Your task to perform on an android device: toggle improve location accuracy Image 0: 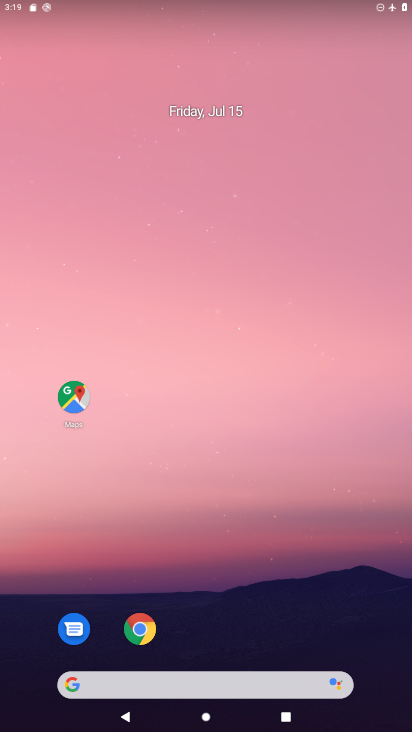
Step 0: drag from (300, 508) to (188, 8)
Your task to perform on an android device: toggle improve location accuracy Image 1: 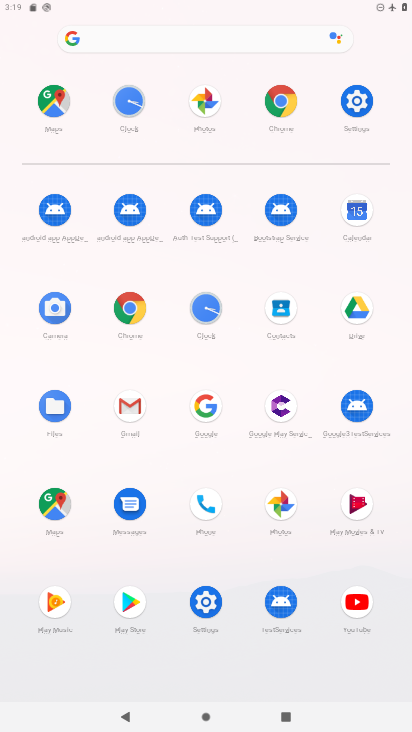
Step 1: click (353, 92)
Your task to perform on an android device: toggle improve location accuracy Image 2: 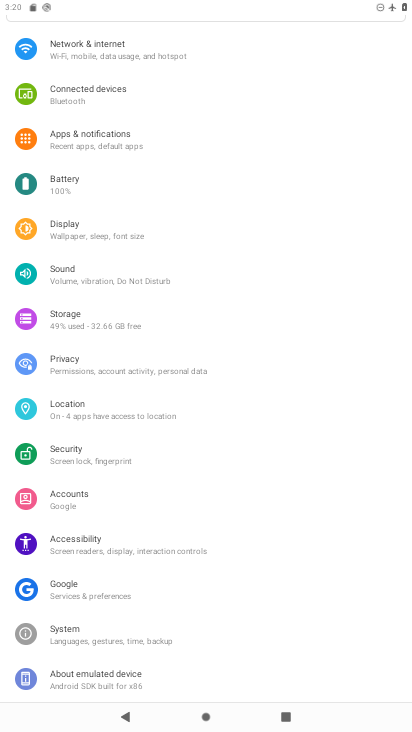
Step 2: click (106, 400)
Your task to perform on an android device: toggle improve location accuracy Image 3: 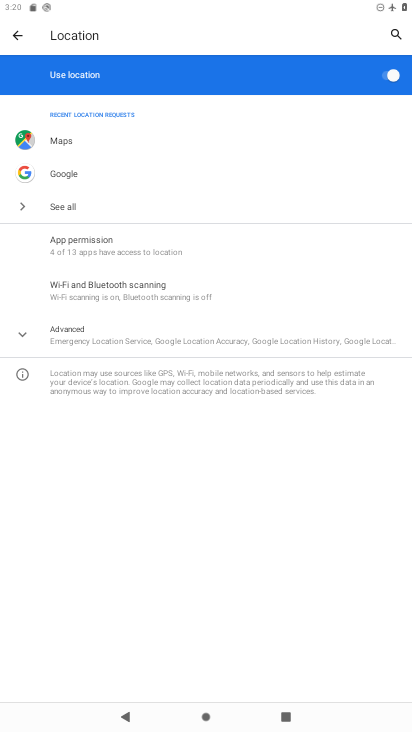
Step 3: click (100, 334)
Your task to perform on an android device: toggle improve location accuracy Image 4: 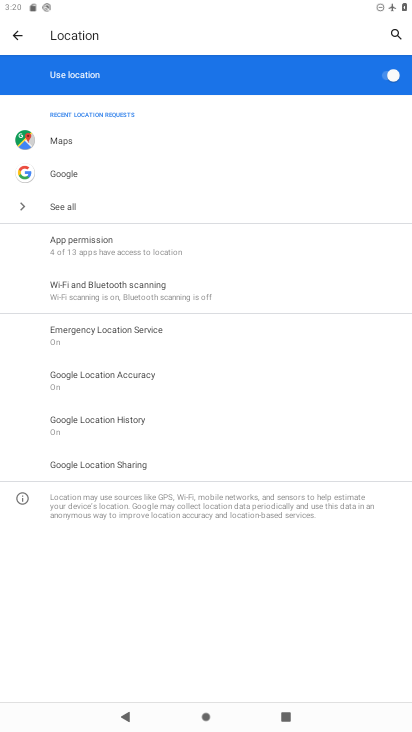
Step 4: click (141, 367)
Your task to perform on an android device: toggle improve location accuracy Image 5: 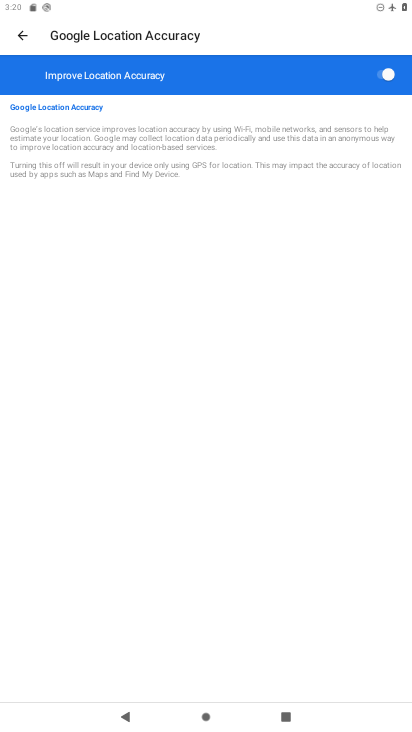
Step 5: click (386, 80)
Your task to perform on an android device: toggle improve location accuracy Image 6: 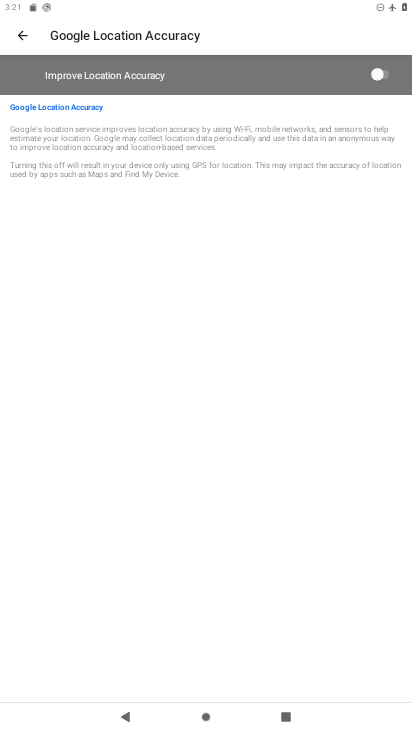
Step 6: task complete